Your task to perform on an android device: stop showing notifications on the lock screen Image 0: 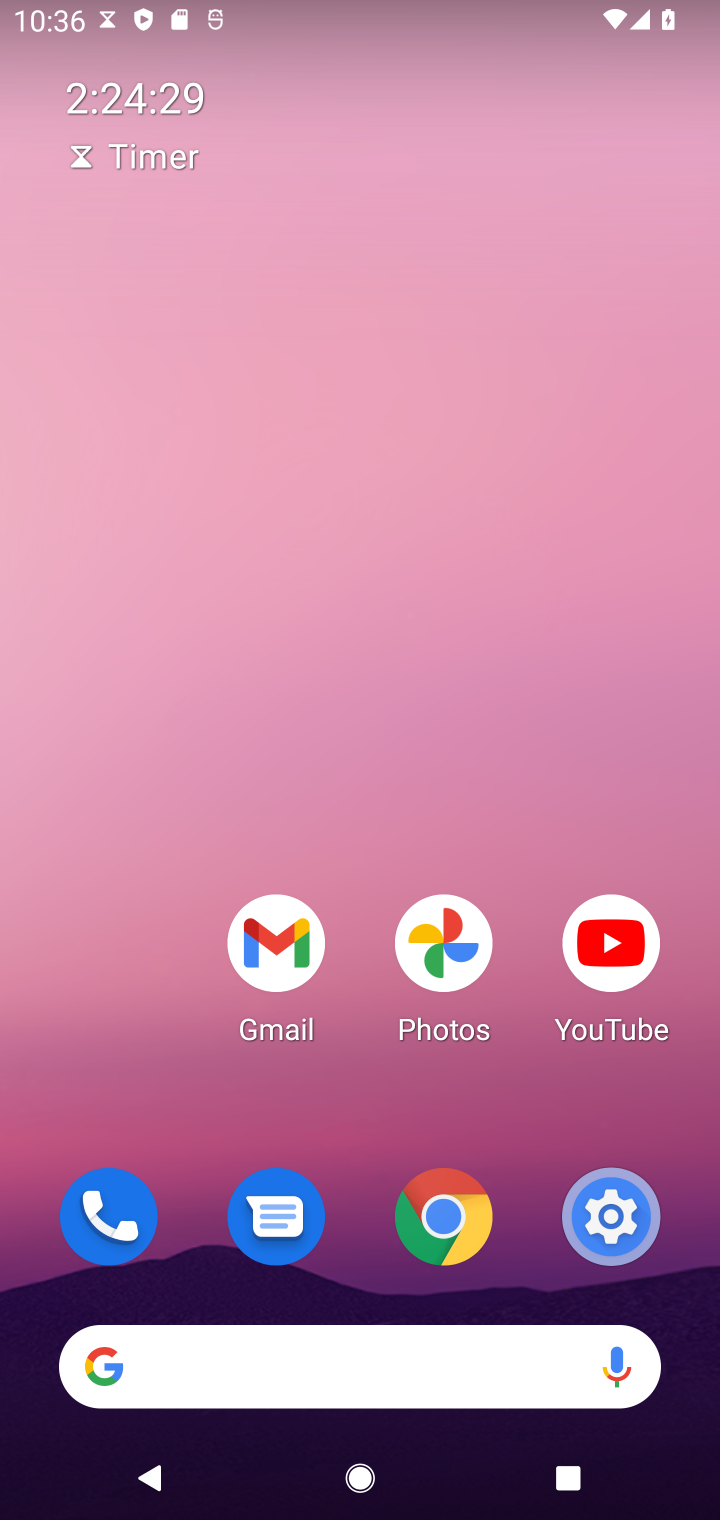
Step 0: click (584, 1215)
Your task to perform on an android device: stop showing notifications on the lock screen Image 1: 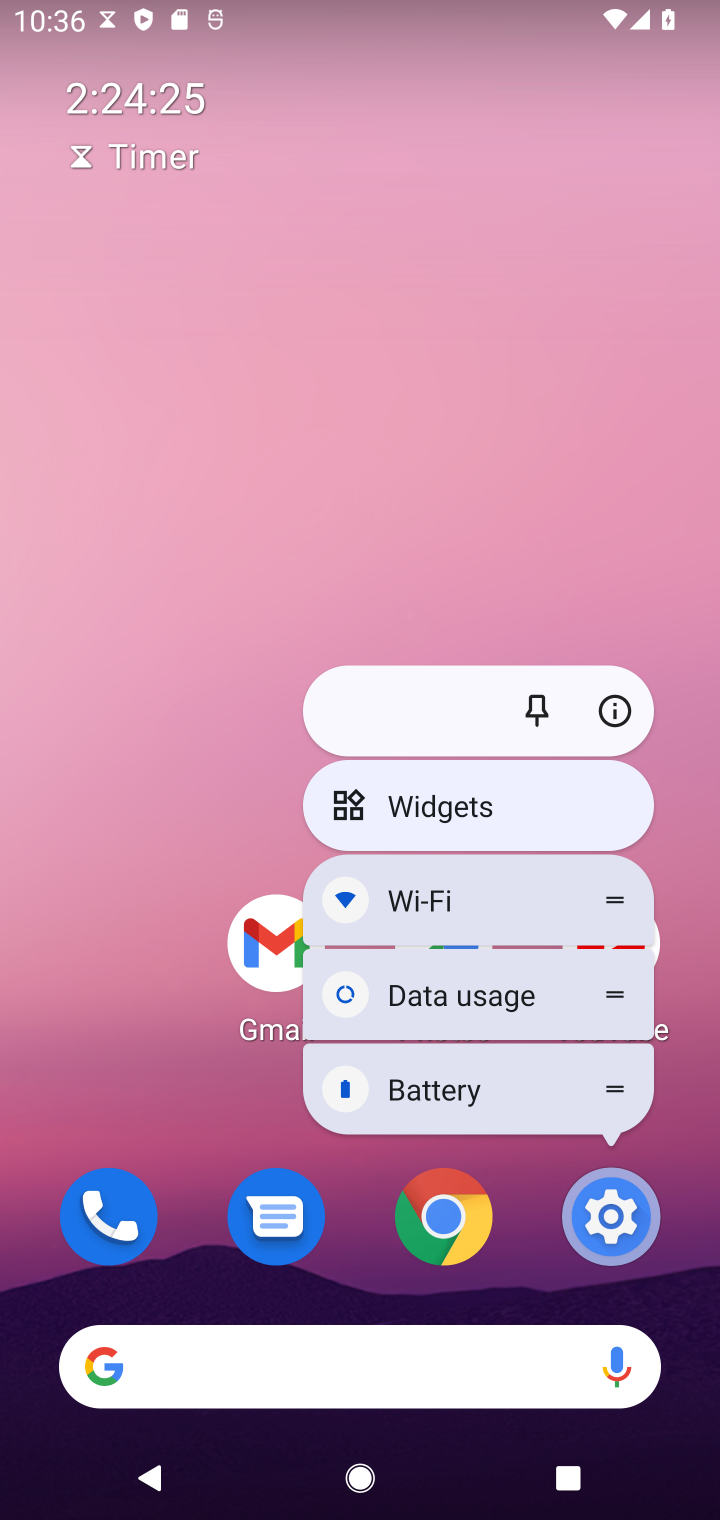
Step 1: click (629, 1218)
Your task to perform on an android device: stop showing notifications on the lock screen Image 2: 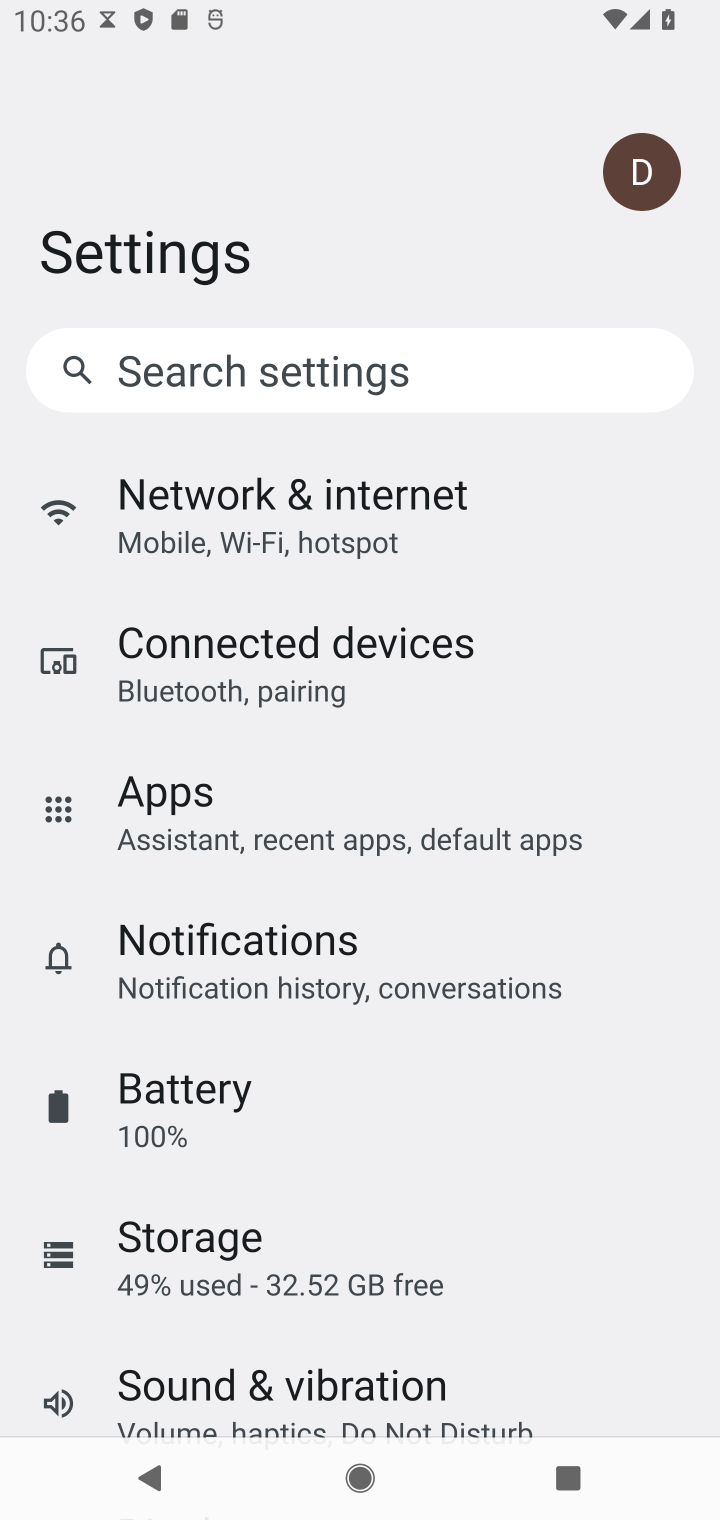
Step 2: click (282, 950)
Your task to perform on an android device: stop showing notifications on the lock screen Image 3: 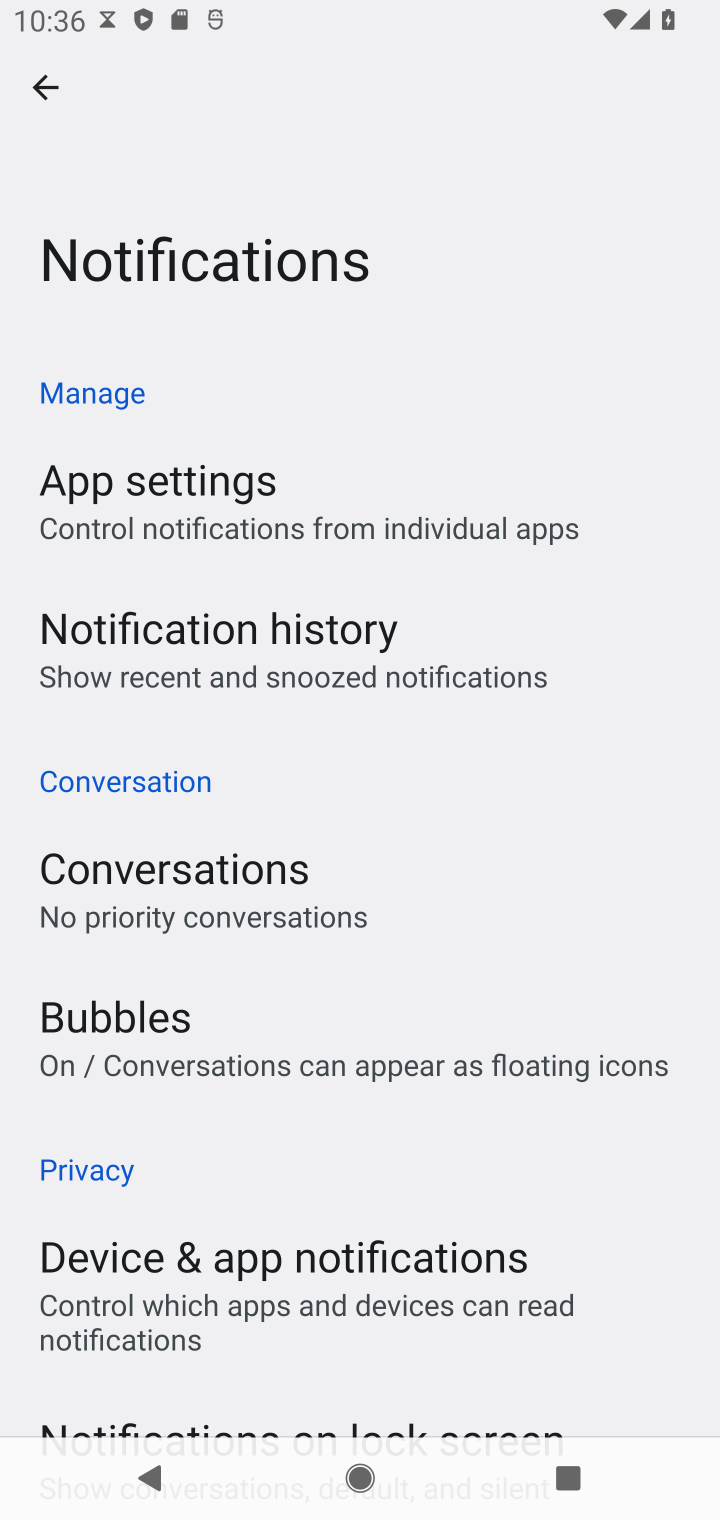
Step 3: drag from (285, 1339) to (376, 651)
Your task to perform on an android device: stop showing notifications on the lock screen Image 4: 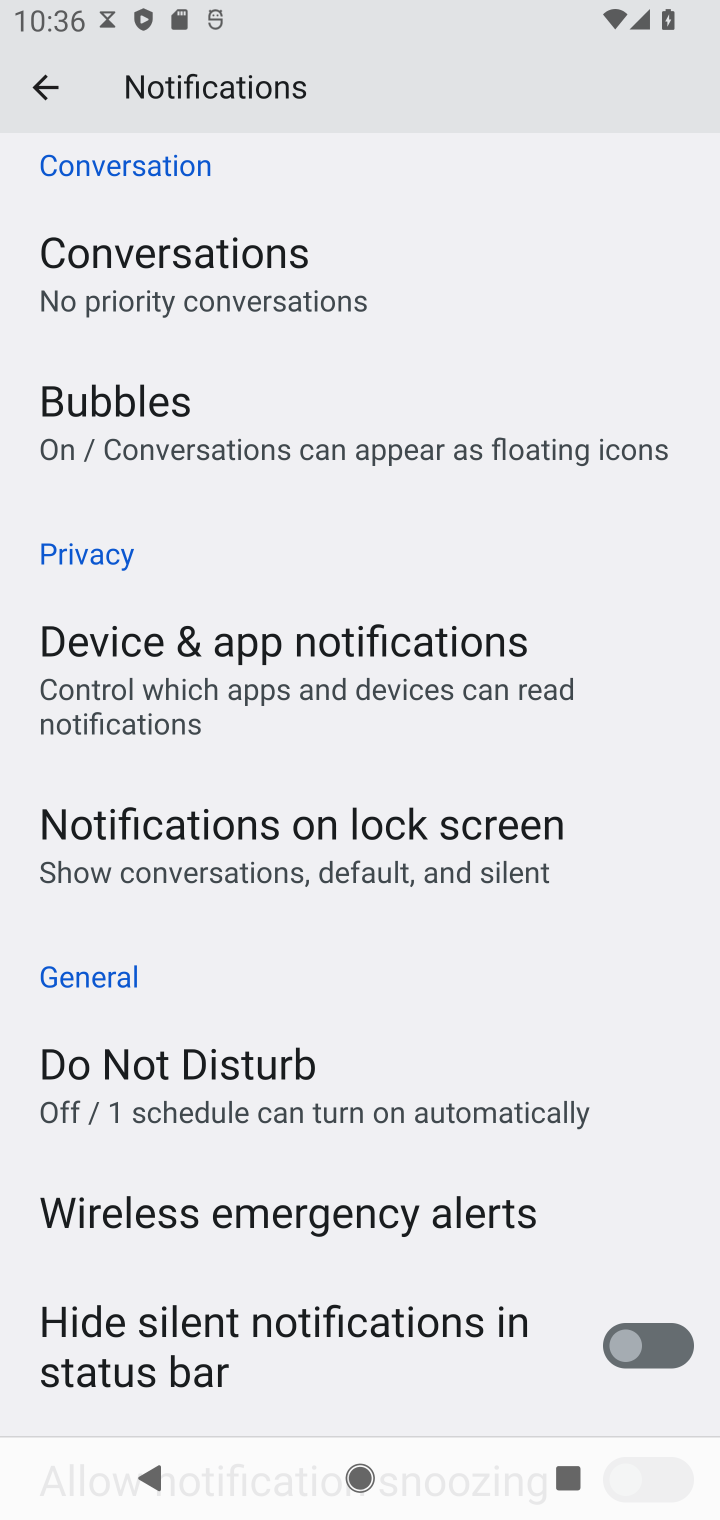
Step 4: click (235, 833)
Your task to perform on an android device: stop showing notifications on the lock screen Image 5: 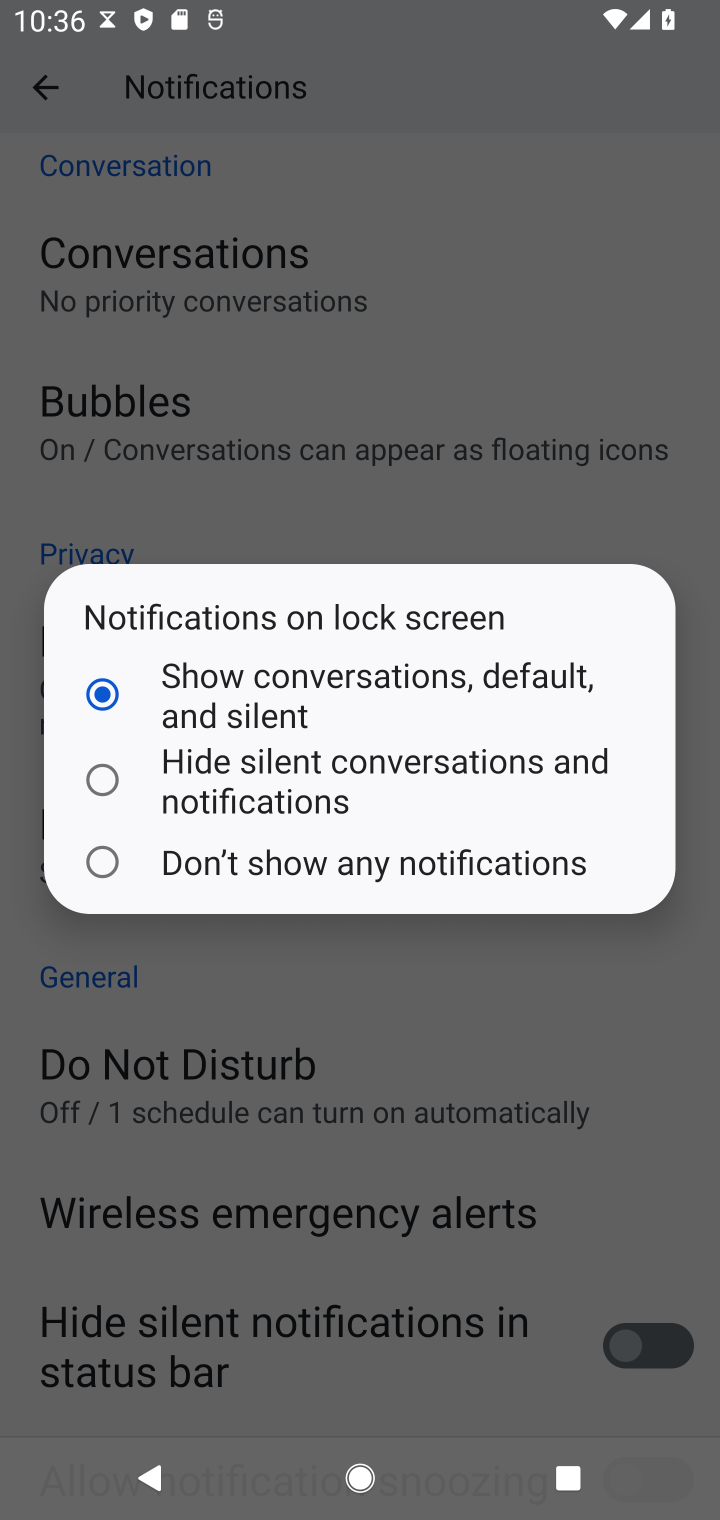
Step 5: click (154, 870)
Your task to perform on an android device: stop showing notifications on the lock screen Image 6: 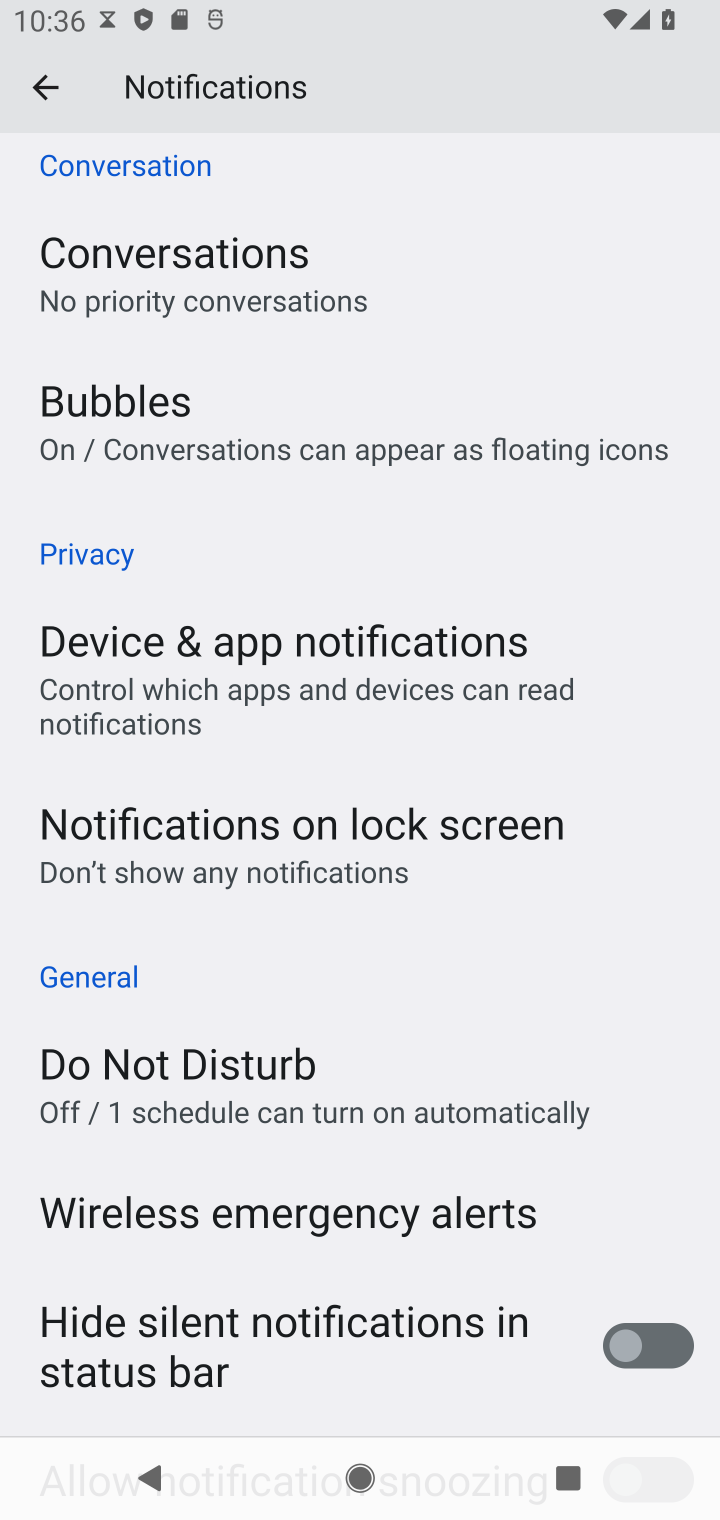
Step 6: task complete